Your task to perform on an android device: Open Google Chrome and click the shortcut for Amazon.com Image 0: 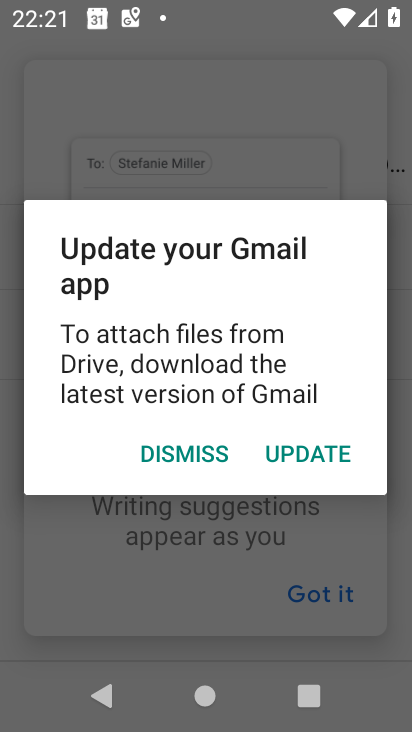
Step 0: press home button
Your task to perform on an android device: Open Google Chrome and click the shortcut for Amazon.com Image 1: 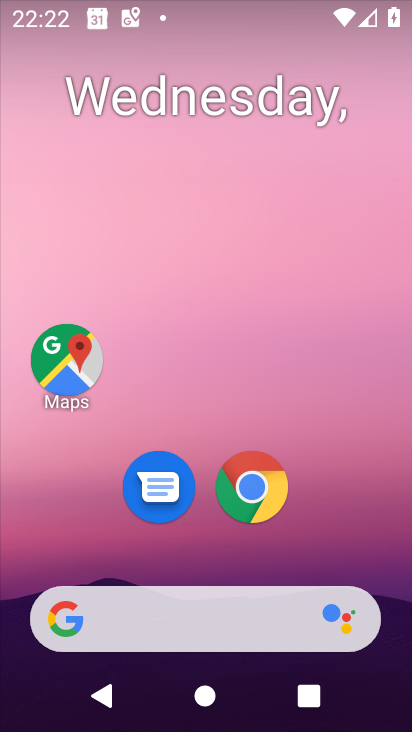
Step 1: click (268, 479)
Your task to perform on an android device: Open Google Chrome and click the shortcut for Amazon.com Image 2: 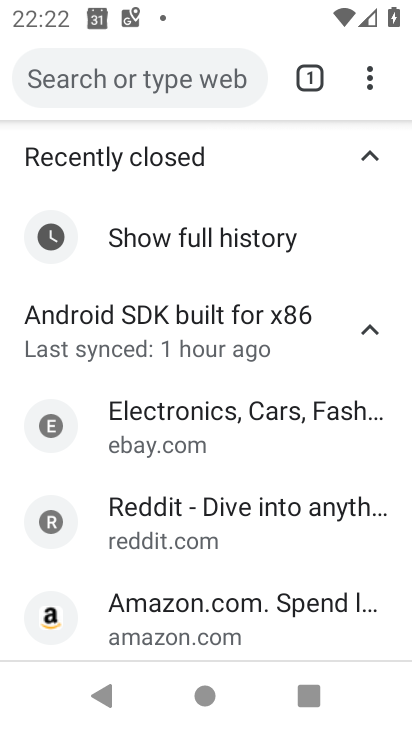
Step 2: click (370, 80)
Your task to perform on an android device: Open Google Chrome and click the shortcut for Amazon.com Image 3: 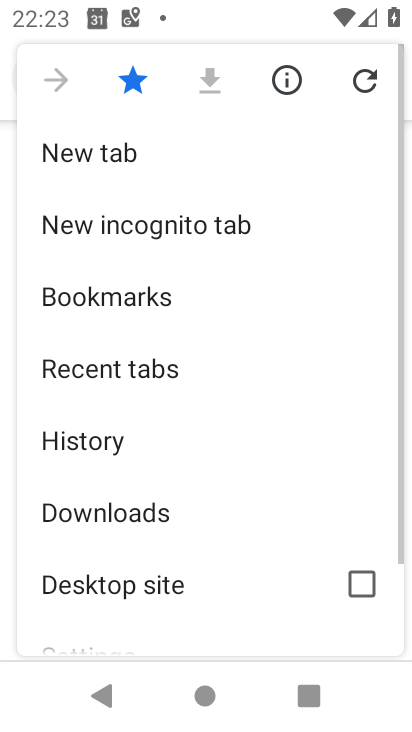
Step 3: click (164, 163)
Your task to perform on an android device: Open Google Chrome and click the shortcut for Amazon.com Image 4: 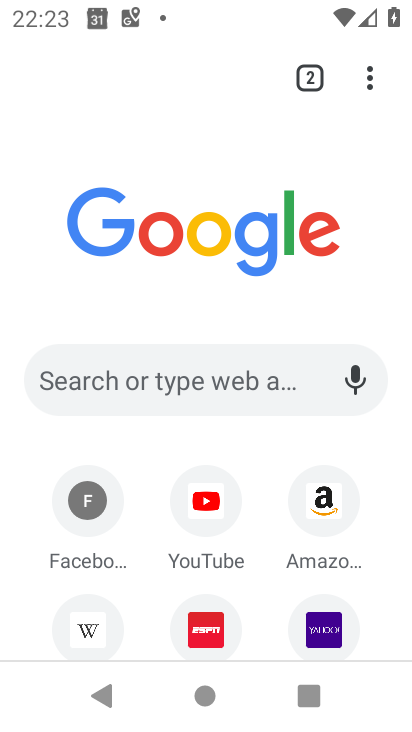
Step 4: click (327, 510)
Your task to perform on an android device: Open Google Chrome and click the shortcut for Amazon.com Image 5: 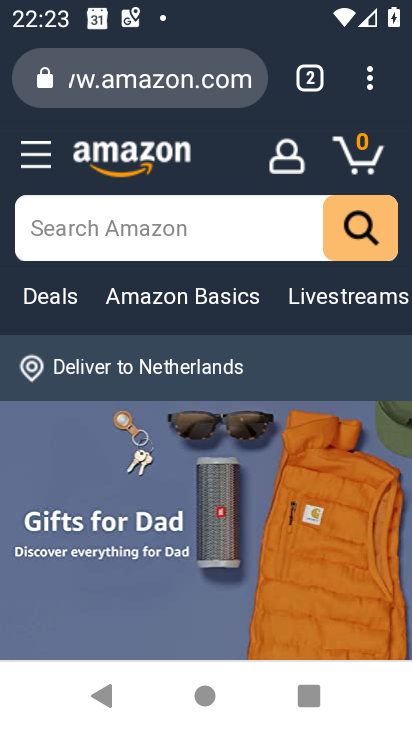
Step 5: task complete